Your task to perform on an android device: Search for sushi restaurants on Maps Image 0: 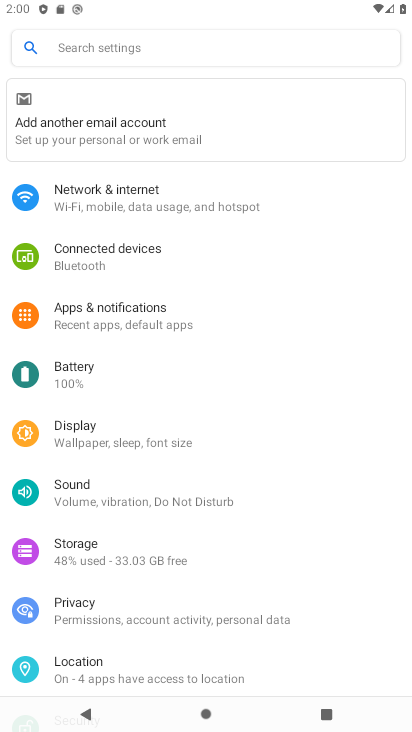
Step 0: press back button
Your task to perform on an android device: Search for sushi restaurants on Maps Image 1: 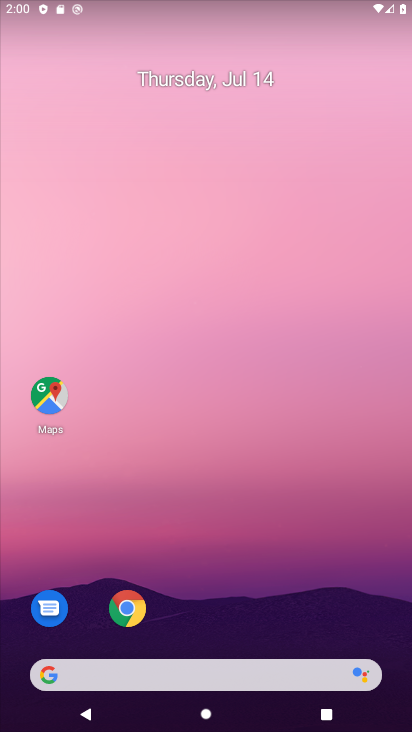
Step 1: click (65, 405)
Your task to perform on an android device: Search for sushi restaurants on Maps Image 2: 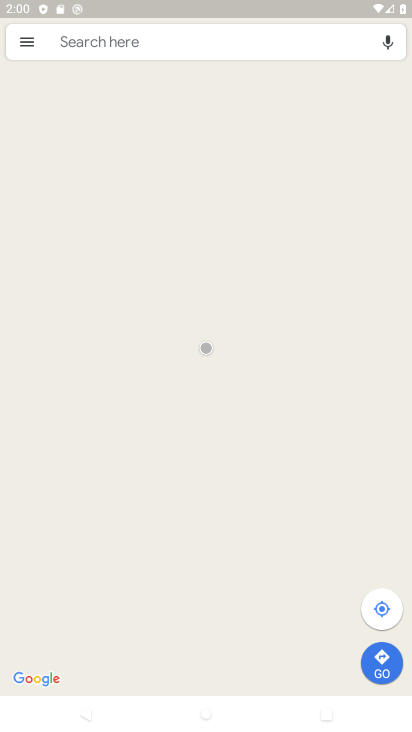
Step 2: click (86, 45)
Your task to perform on an android device: Search for sushi restaurants on Maps Image 3: 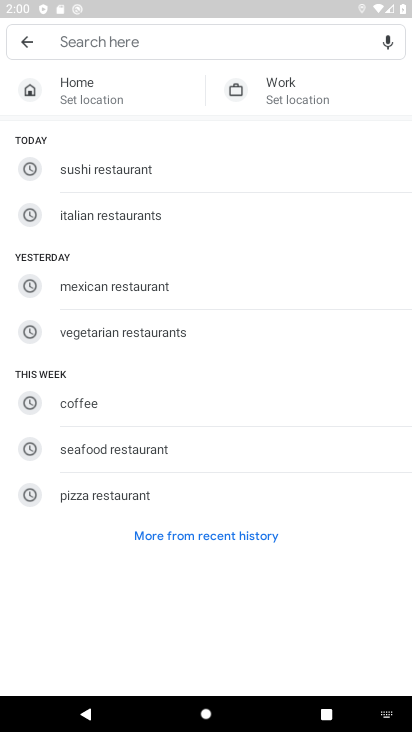
Step 3: type "sushi restaurants"
Your task to perform on an android device: Search for sushi restaurants on Maps Image 4: 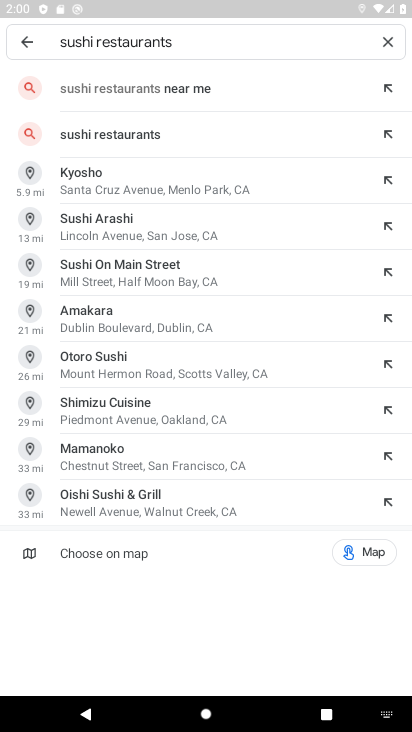
Step 4: click (201, 75)
Your task to perform on an android device: Search for sushi restaurants on Maps Image 5: 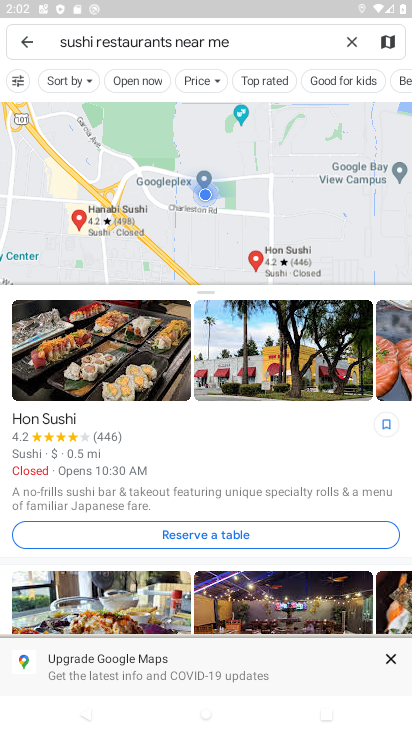
Step 5: task complete